Your task to perform on an android device: What's the weather? Image 0: 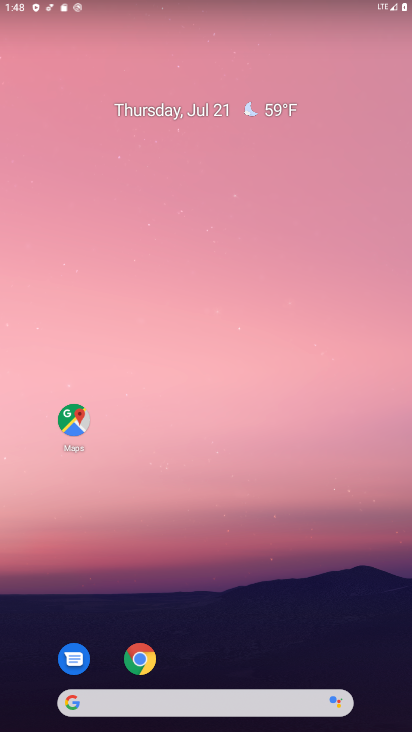
Step 0: click (253, 105)
Your task to perform on an android device: What's the weather? Image 1: 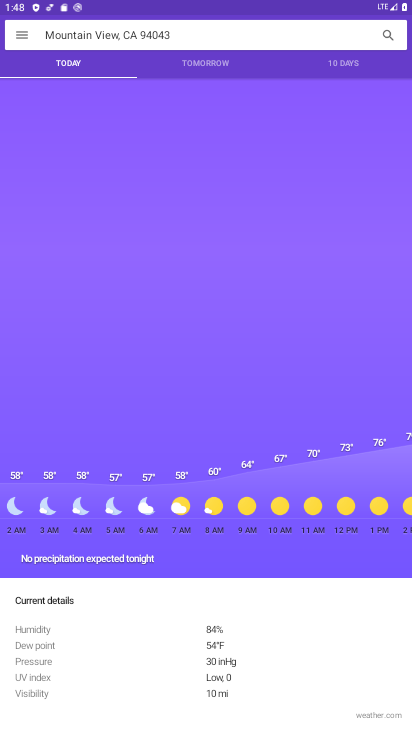
Step 1: task complete